Your task to perform on an android device: Open notification settings Image 0: 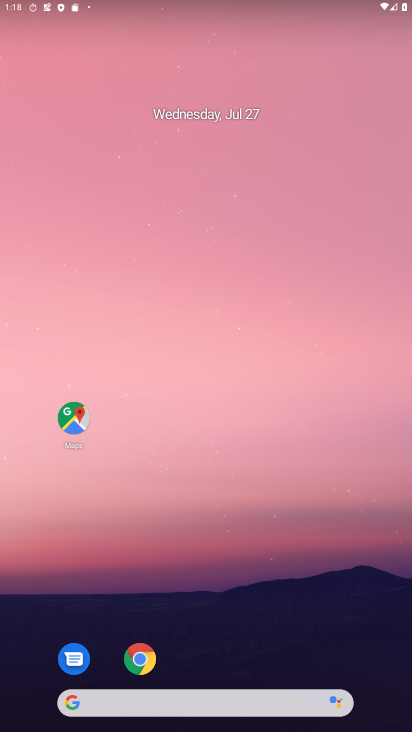
Step 0: press home button
Your task to perform on an android device: Open notification settings Image 1: 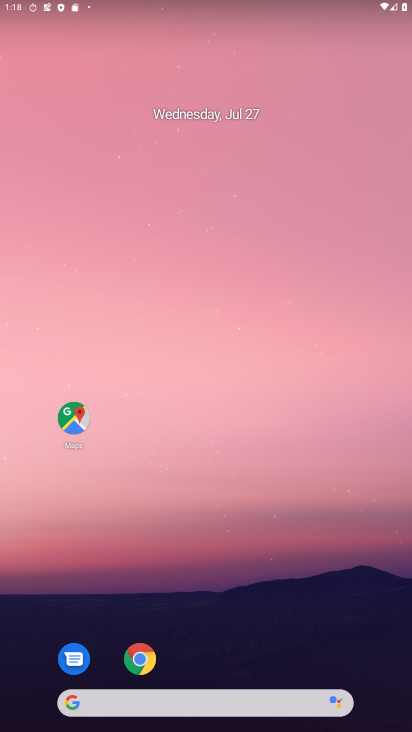
Step 1: drag from (230, 467) to (243, 25)
Your task to perform on an android device: Open notification settings Image 2: 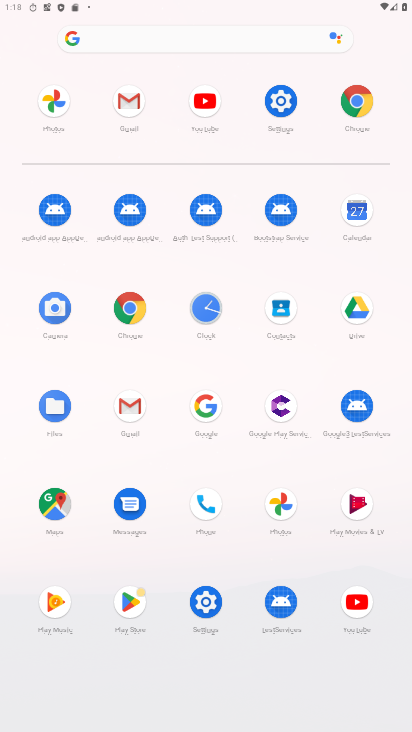
Step 2: click (277, 96)
Your task to perform on an android device: Open notification settings Image 3: 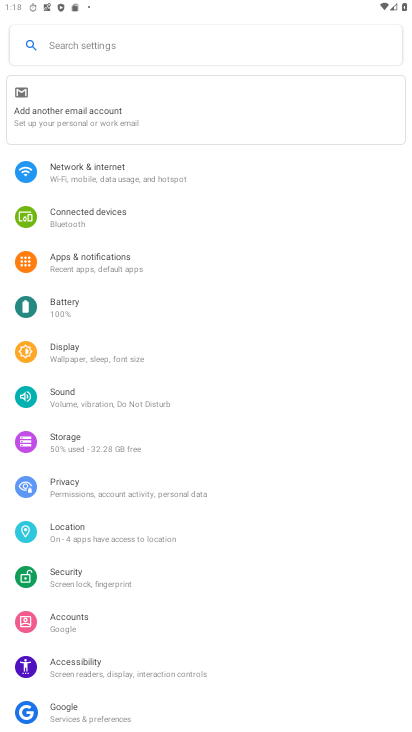
Step 3: click (148, 255)
Your task to perform on an android device: Open notification settings Image 4: 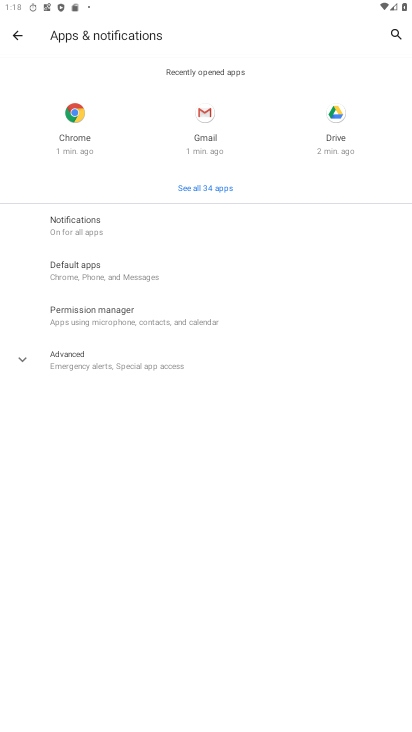
Step 4: click (117, 223)
Your task to perform on an android device: Open notification settings Image 5: 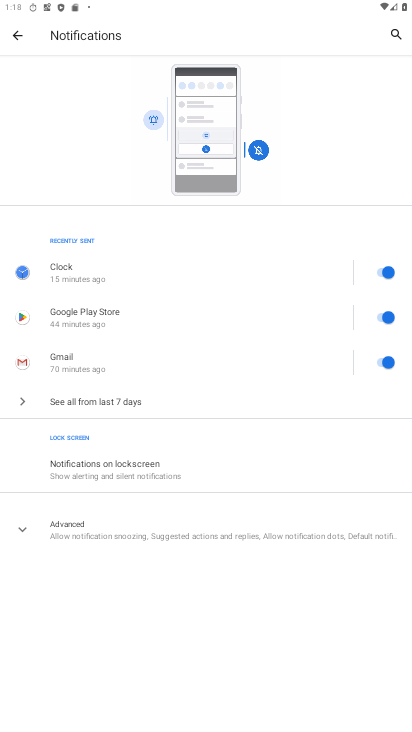
Step 5: click (22, 524)
Your task to perform on an android device: Open notification settings Image 6: 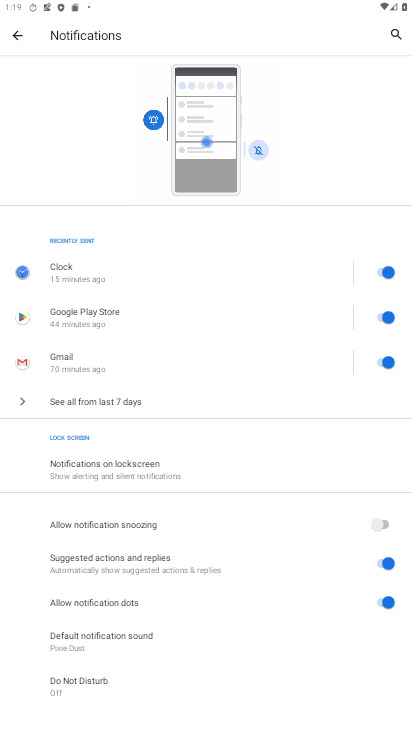
Step 6: task complete